Your task to perform on an android device: turn notification dots off Image 0: 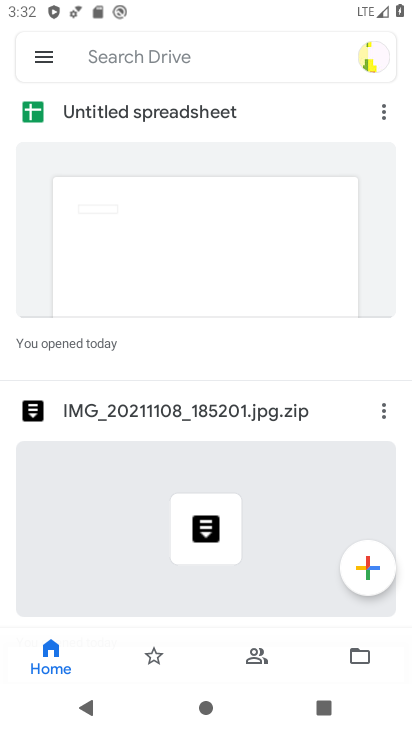
Step 0: press back button
Your task to perform on an android device: turn notification dots off Image 1: 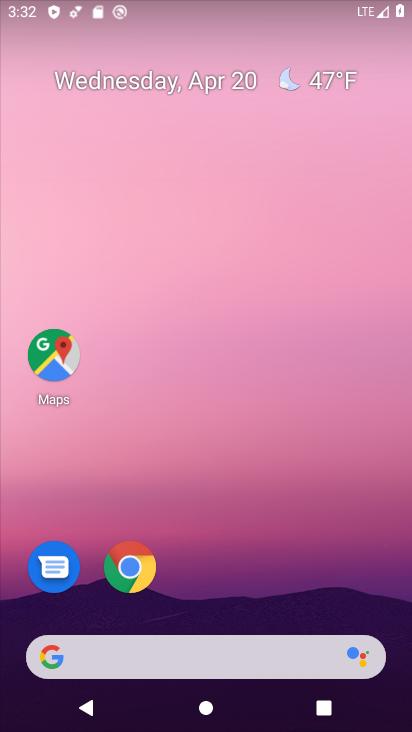
Step 1: drag from (313, 526) to (287, 43)
Your task to perform on an android device: turn notification dots off Image 2: 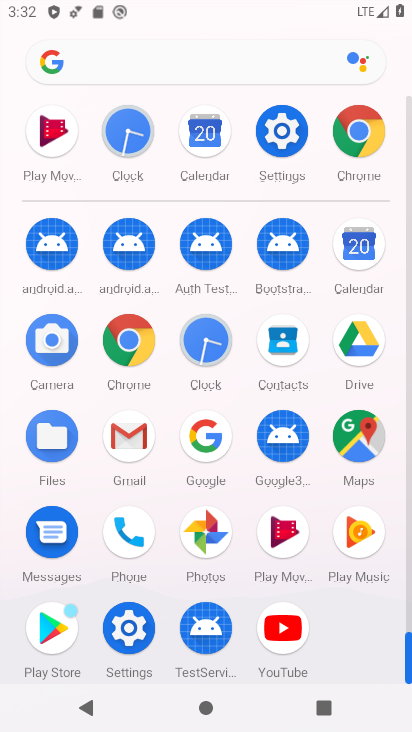
Step 2: drag from (16, 475) to (12, 239)
Your task to perform on an android device: turn notification dots off Image 3: 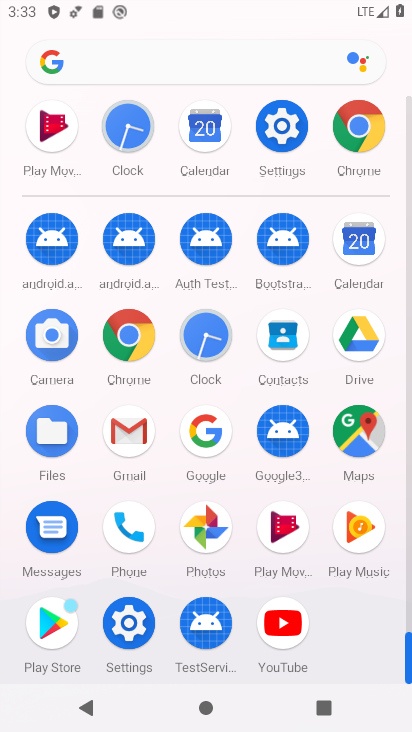
Step 3: click (130, 621)
Your task to perform on an android device: turn notification dots off Image 4: 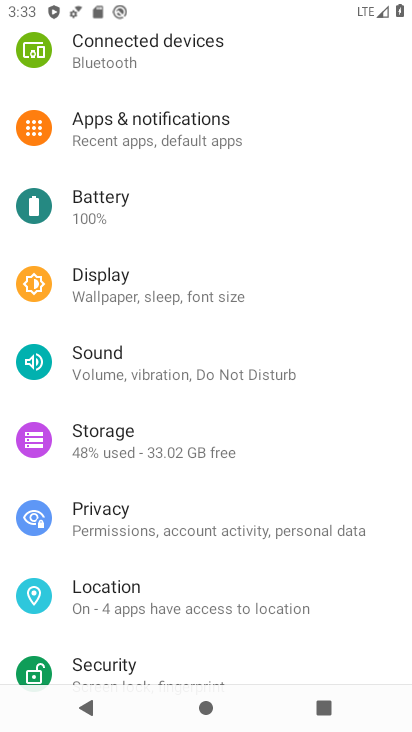
Step 4: click (164, 134)
Your task to perform on an android device: turn notification dots off Image 5: 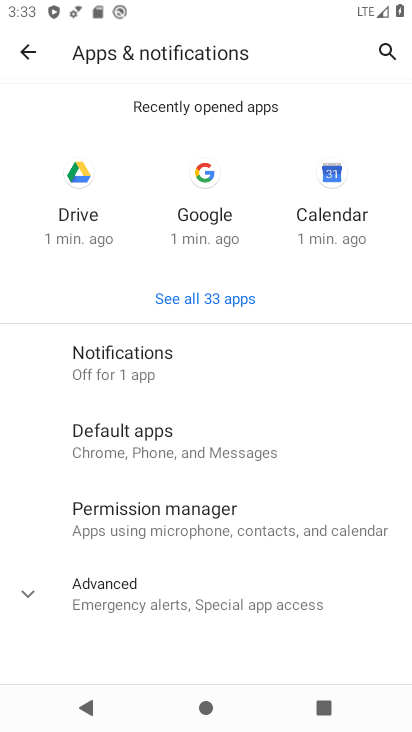
Step 5: click (186, 353)
Your task to perform on an android device: turn notification dots off Image 6: 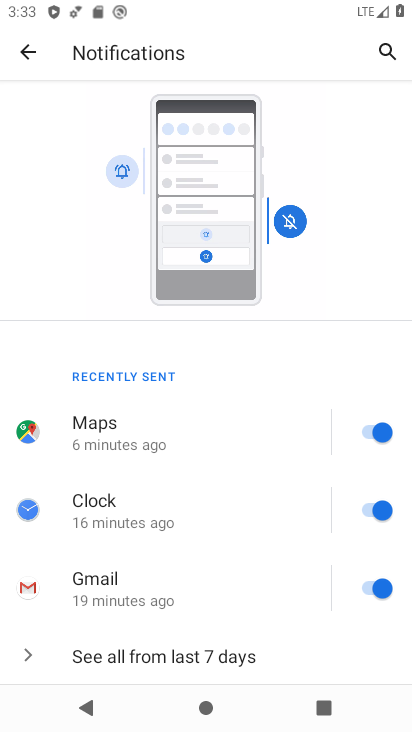
Step 6: drag from (206, 540) to (249, 171)
Your task to perform on an android device: turn notification dots off Image 7: 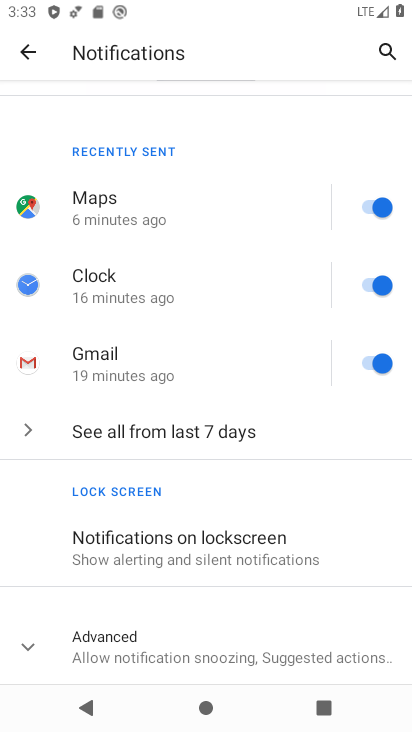
Step 7: click (186, 631)
Your task to perform on an android device: turn notification dots off Image 8: 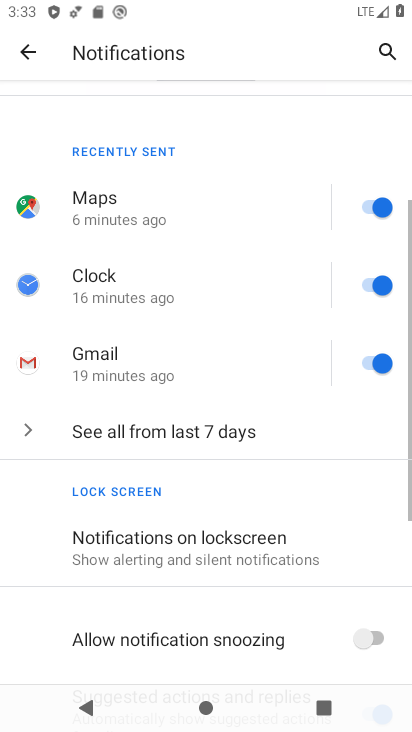
Step 8: drag from (187, 628) to (190, 274)
Your task to perform on an android device: turn notification dots off Image 9: 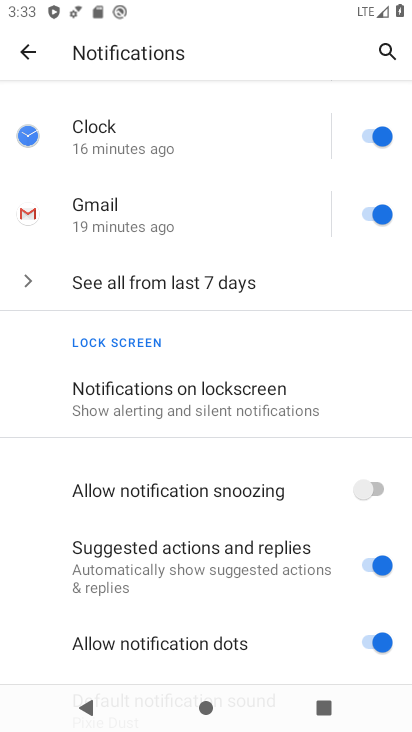
Step 9: drag from (226, 526) to (254, 188)
Your task to perform on an android device: turn notification dots off Image 10: 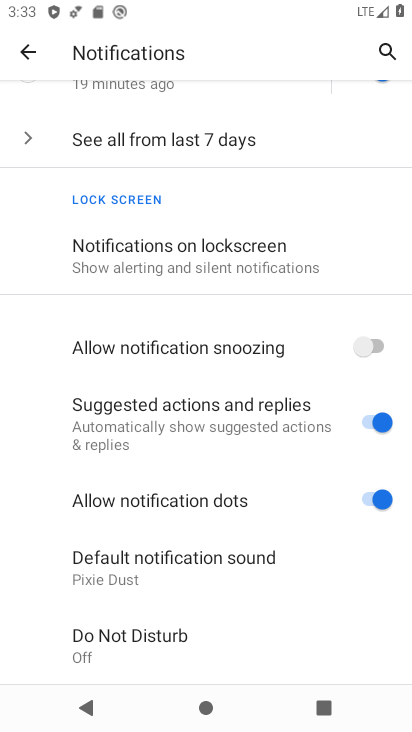
Step 10: click (366, 491)
Your task to perform on an android device: turn notification dots off Image 11: 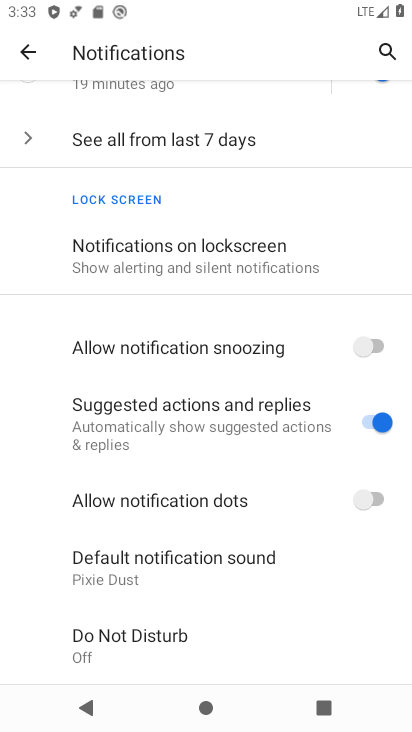
Step 11: task complete